Your task to perform on an android device: Check the news Image 0: 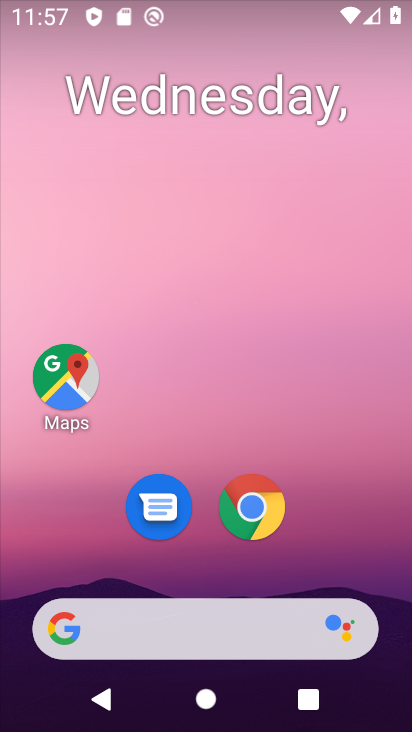
Step 0: drag from (230, 604) to (242, 139)
Your task to perform on an android device: Check the news Image 1: 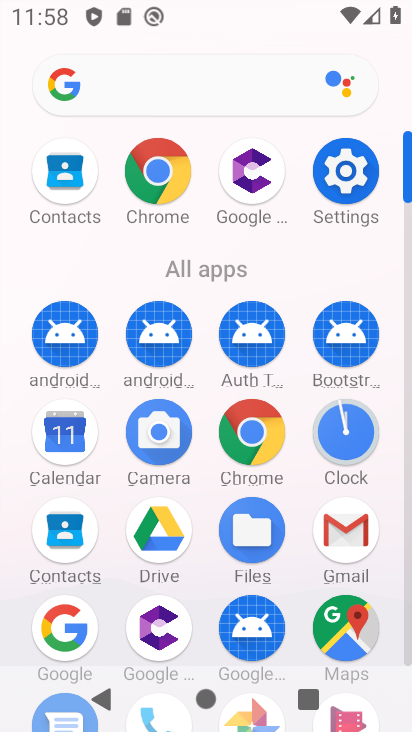
Step 1: click (79, 618)
Your task to perform on an android device: Check the news Image 2: 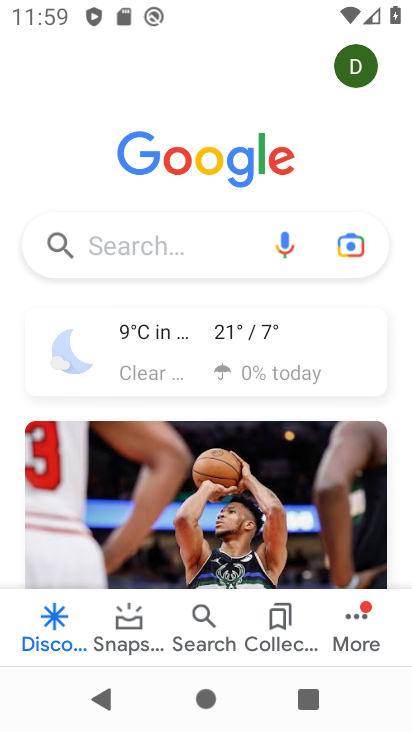
Step 2: click (85, 254)
Your task to perform on an android device: Check the news Image 3: 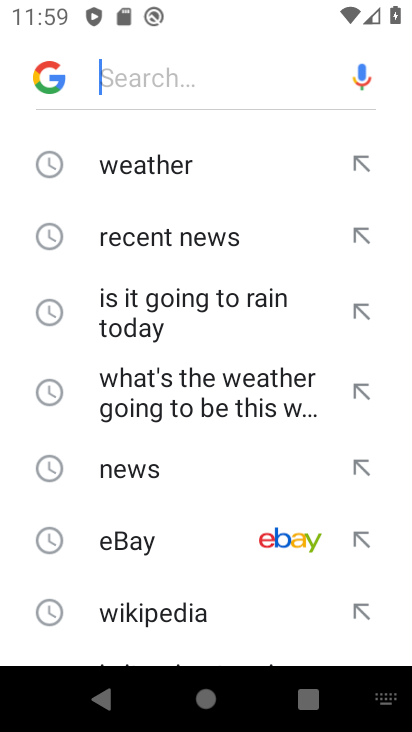
Step 3: click (171, 467)
Your task to perform on an android device: Check the news Image 4: 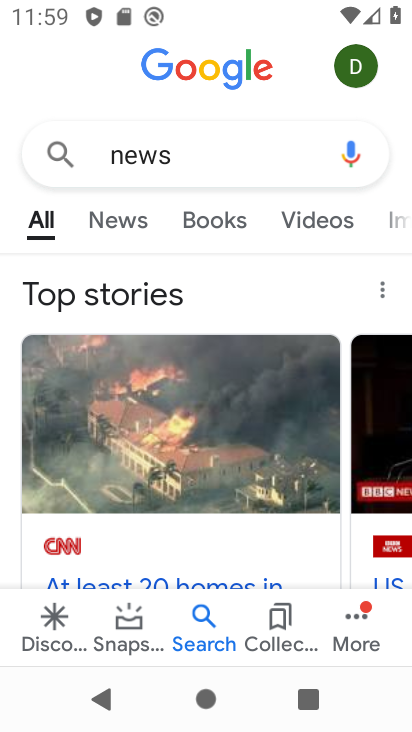
Step 4: click (114, 216)
Your task to perform on an android device: Check the news Image 5: 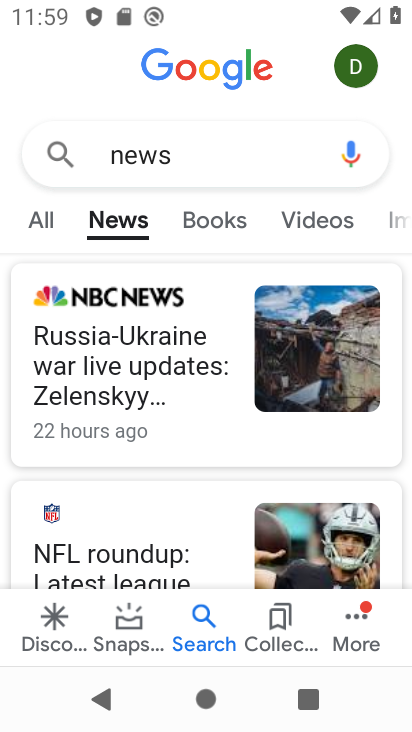
Step 5: task complete